Your task to perform on an android device: toggle pop-ups in chrome Image 0: 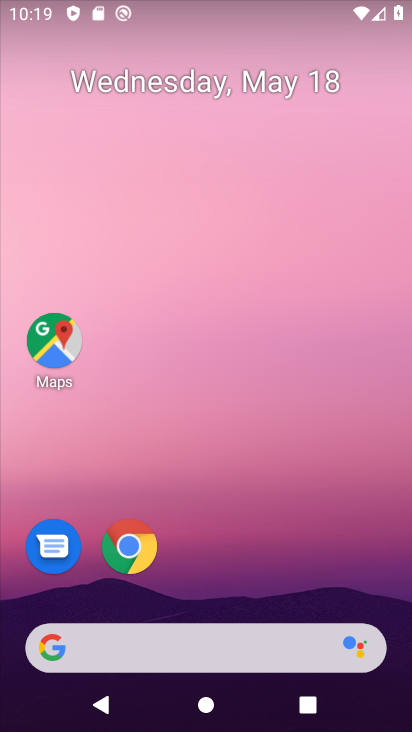
Step 0: click (126, 549)
Your task to perform on an android device: toggle pop-ups in chrome Image 1: 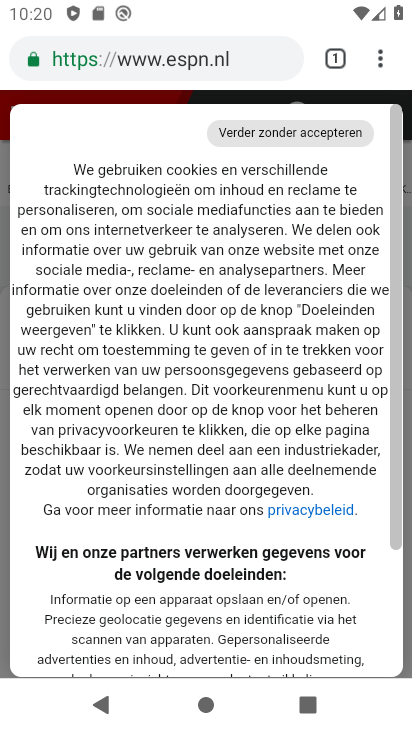
Step 1: click (382, 63)
Your task to perform on an android device: toggle pop-ups in chrome Image 2: 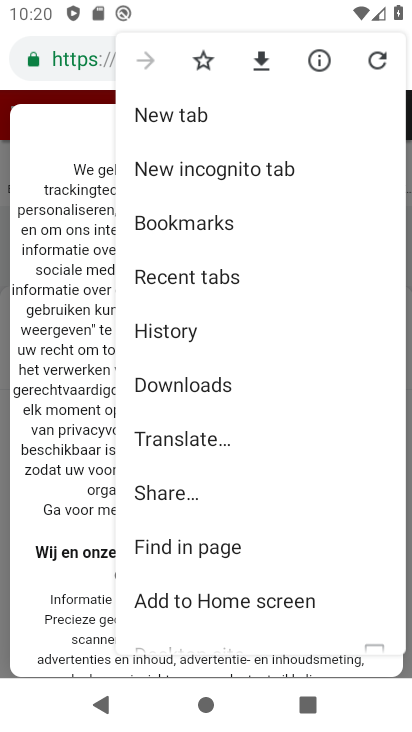
Step 2: drag from (173, 568) to (178, 291)
Your task to perform on an android device: toggle pop-ups in chrome Image 3: 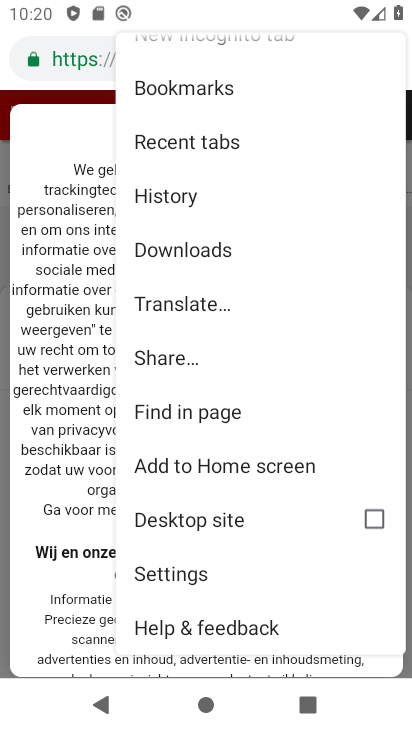
Step 3: click (188, 568)
Your task to perform on an android device: toggle pop-ups in chrome Image 4: 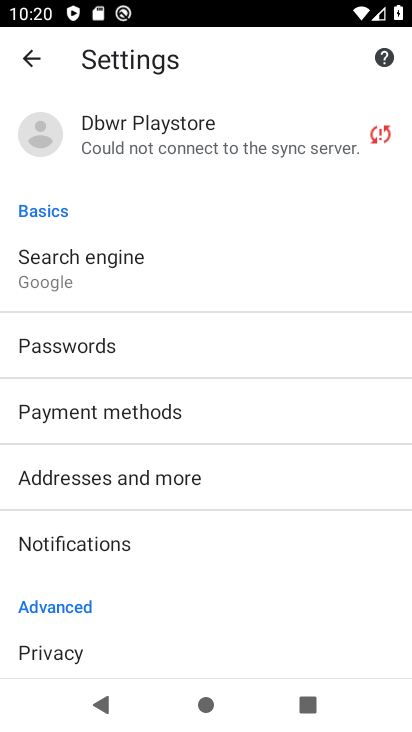
Step 4: drag from (173, 606) to (195, 250)
Your task to perform on an android device: toggle pop-ups in chrome Image 5: 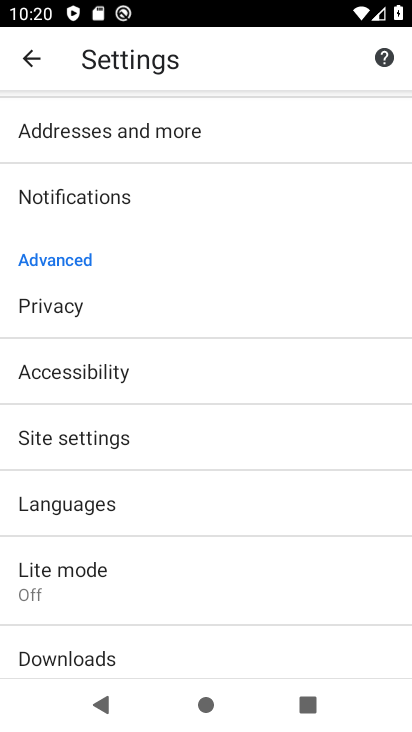
Step 5: click (88, 432)
Your task to perform on an android device: toggle pop-ups in chrome Image 6: 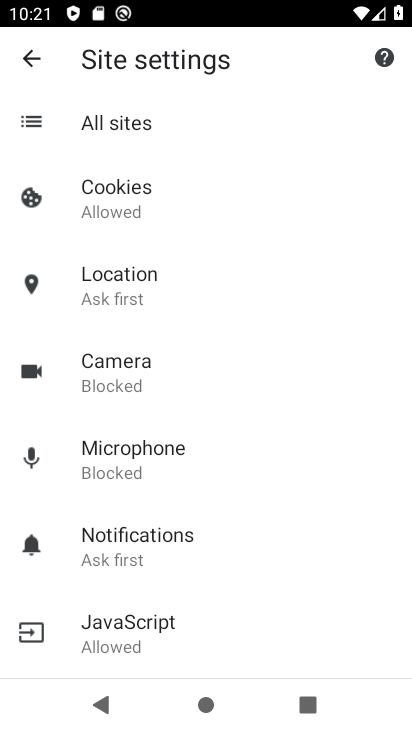
Step 6: drag from (164, 609) to (171, 312)
Your task to perform on an android device: toggle pop-ups in chrome Image 7: 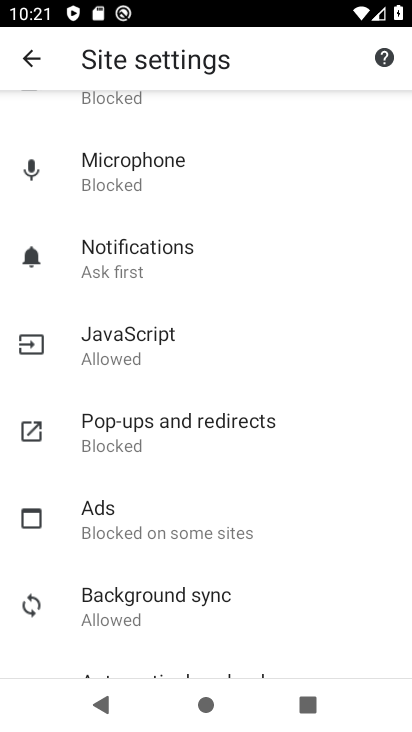
Step 7: click (149, 419)
Your task to perform on an android device: toggle pop-ups in chrome Image 8: 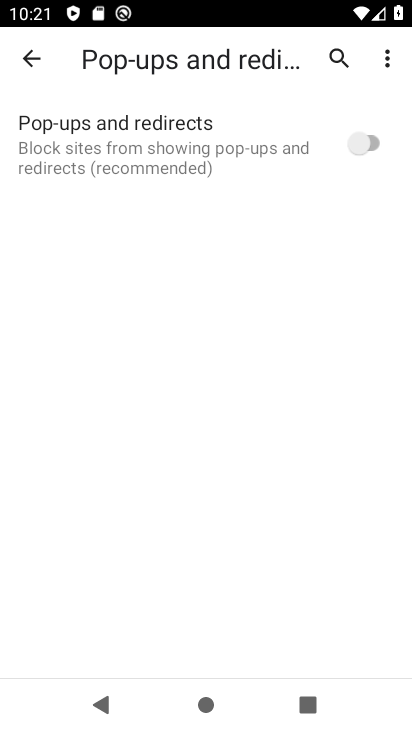
Step 8: click (374, 145)
Your task to perform on an android device: toggle pop-ups in chrome Image 9: 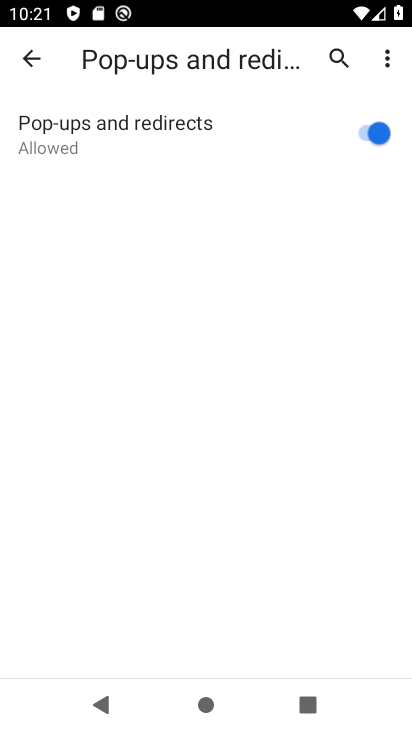
Step 9: task complete